Your task to perform on an android device: delete browsing data in the chrome app Image 0: 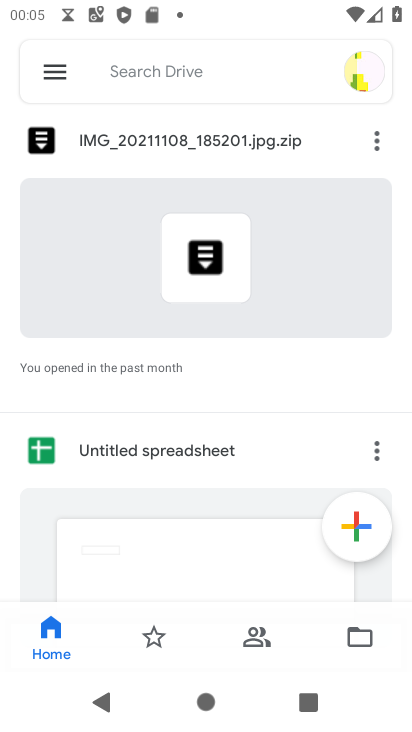
Step 0: press back button
Your task to perform on an android device: delete browsing data in the chrome app Image 1: 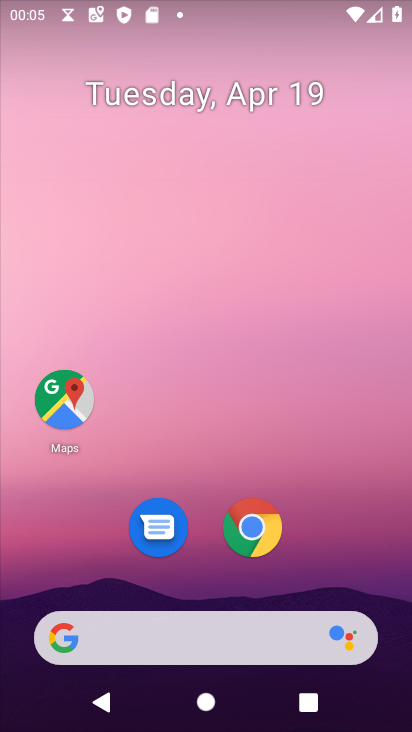
Step 1: click (250, 521)
Your task to perform on an android device: delete browsing data in the chrome app Image 2: 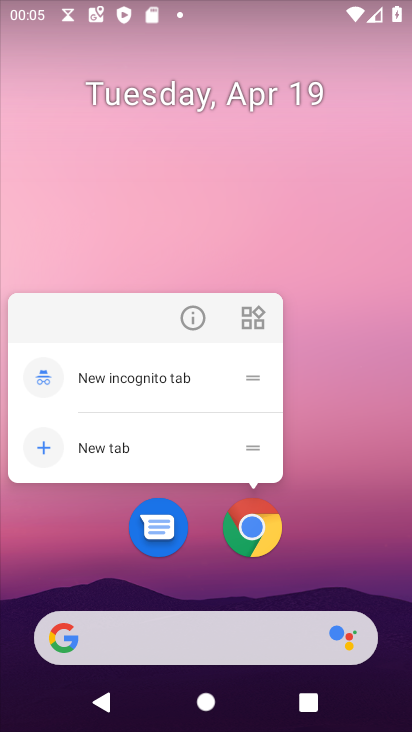
Step 2: click (249, 522)
Your task to perform on an android device: delete browsing data in the chrome app Image 3: 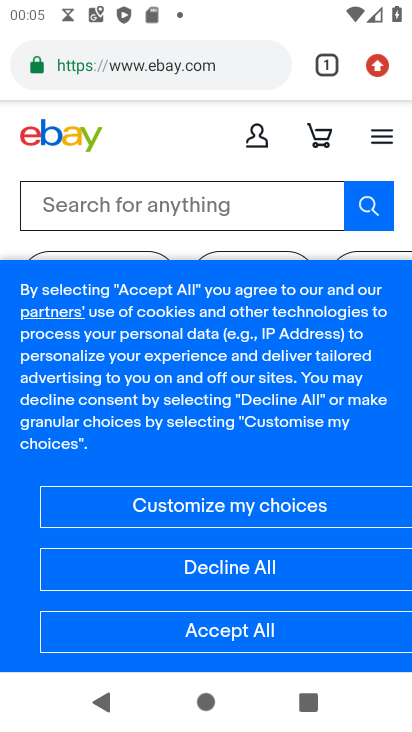
Step 3: click (382, 61)
Your task to perform on an android device: delete browsing data in the chrome app Image 4: 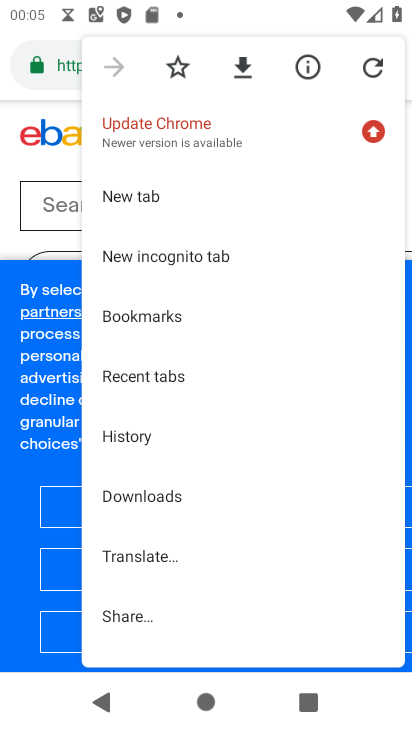
Step 4: click (168, 434)
Your task to perform on an android device: delete browsing data in the chrome app Image 5: 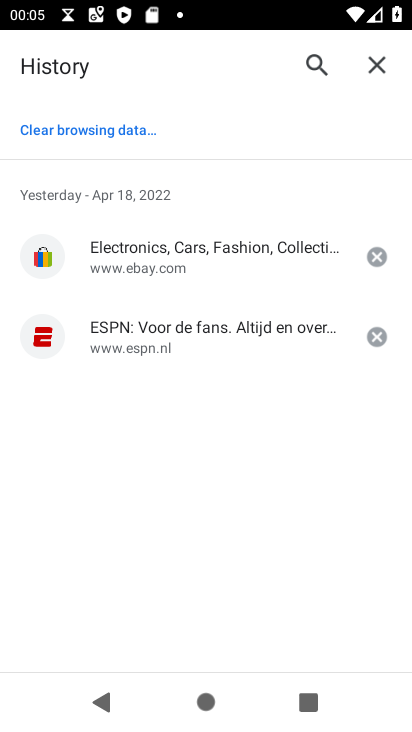
Step 5: click (117, 135)
Your task to perform on an android device: delete browsing data in the chrome app Image 6: 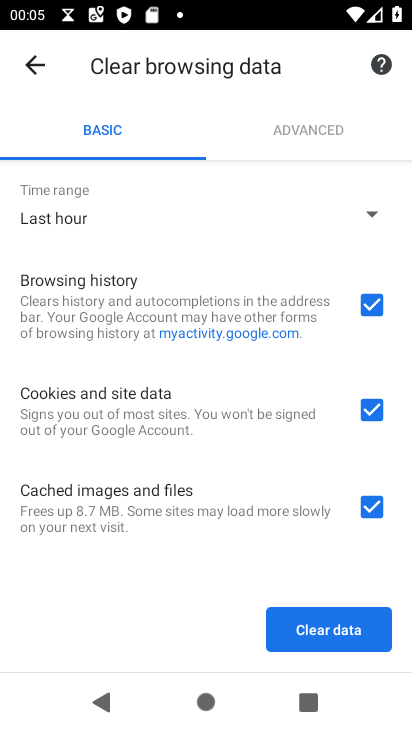
Step 6: click (330, 393)
Your task to perform on an android device: delete browsing data in the chrome app Image 7: 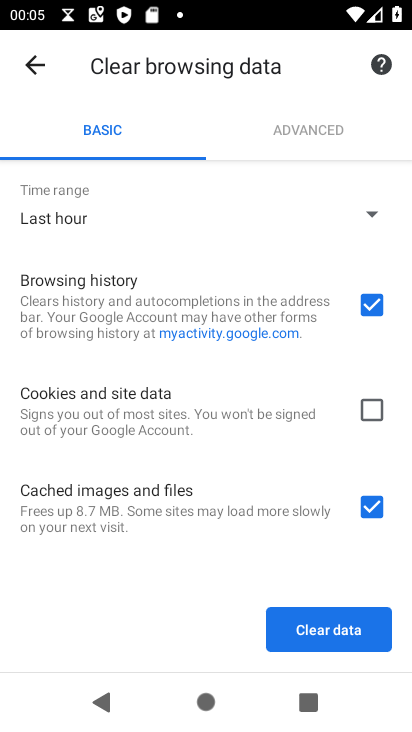
Step 7: click (340, 488)
Your task to perform on an android device: delete browsing data in the chrome app Image 8: 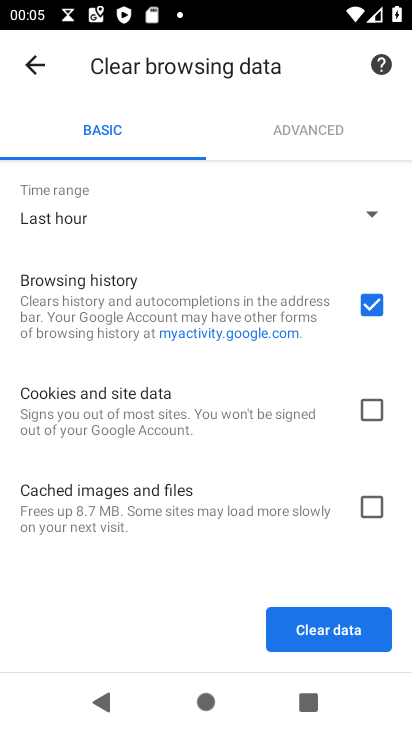
Step 8: click (344, 637)
Your task to perform on an android device: delete browsing data in the chrome app Image 9: 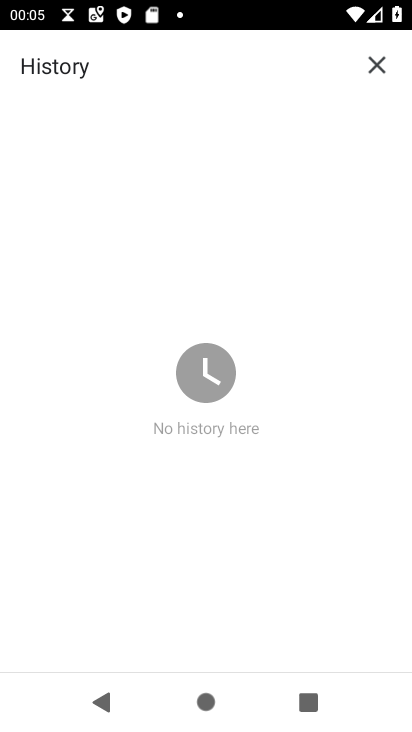
Step 9: task complete